Your task to perform on an android device: check android version Image 0: 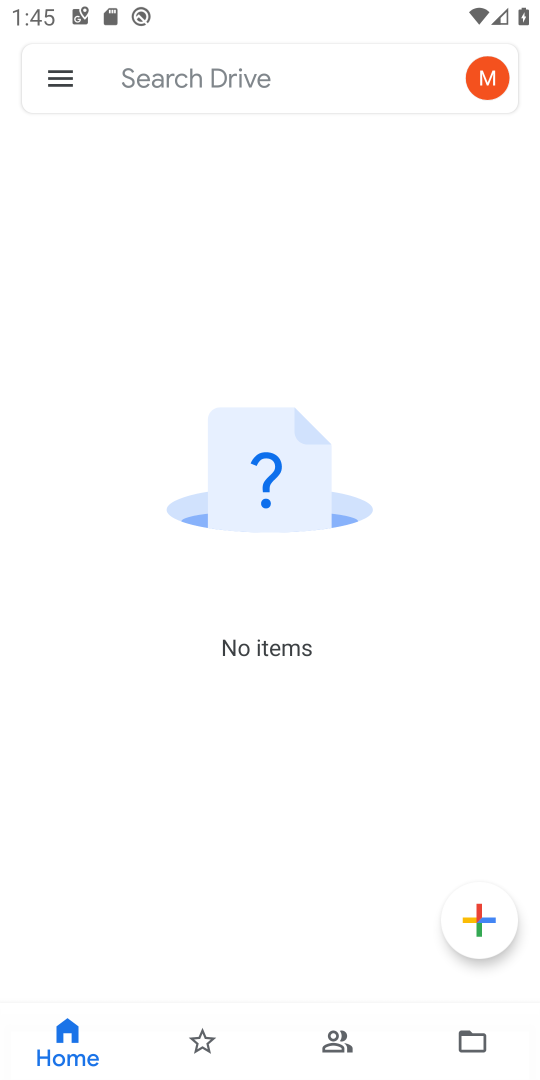
Step 0: press back button
Your task to perform on an android device: check android version Image 1: 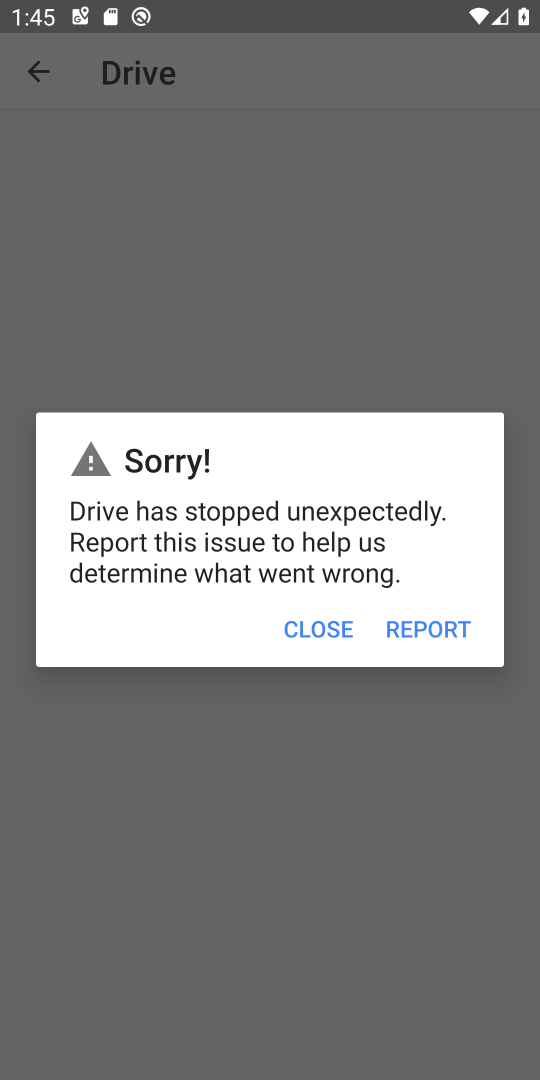
Step 1: press home button
Your task to perform on an android device: check android version Image 2: 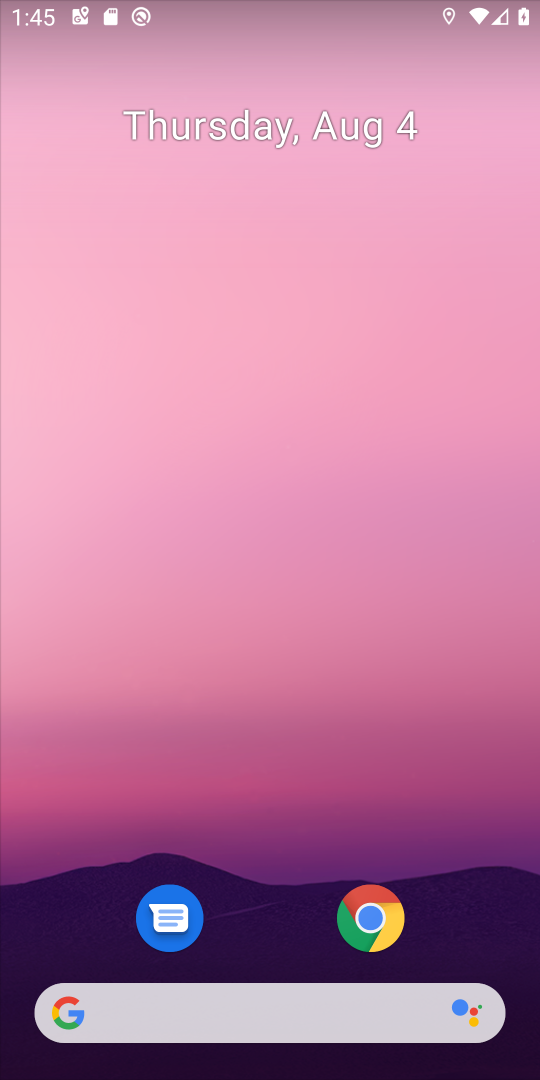
Step 2: drag from (215, 569) to (215, 345)
Your task to perform on an android device: check android version Image 3: 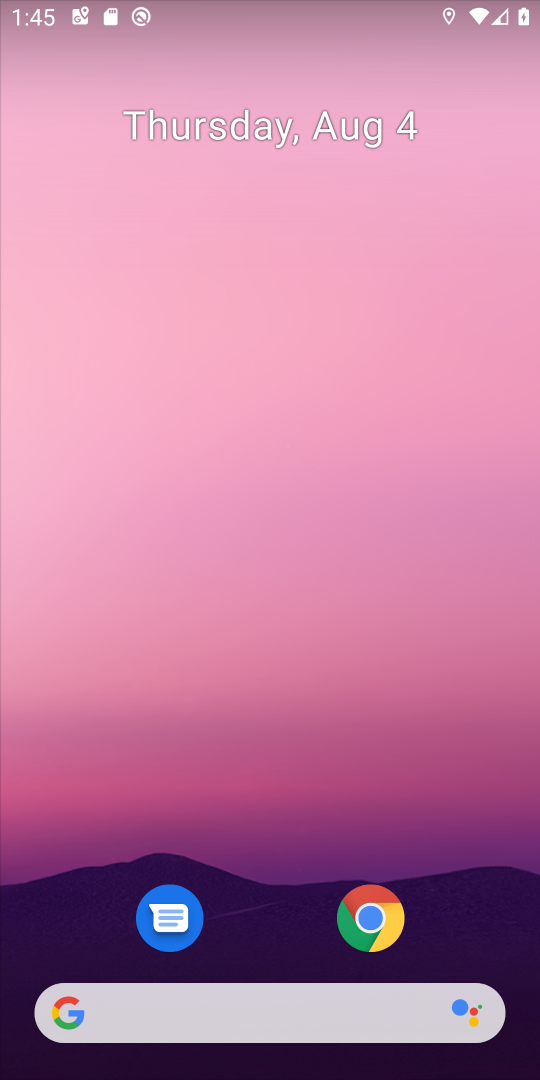
Step 3: drag from (296, 794) to (263, 177)
Your task to perform on an android device: check android version Image 4: 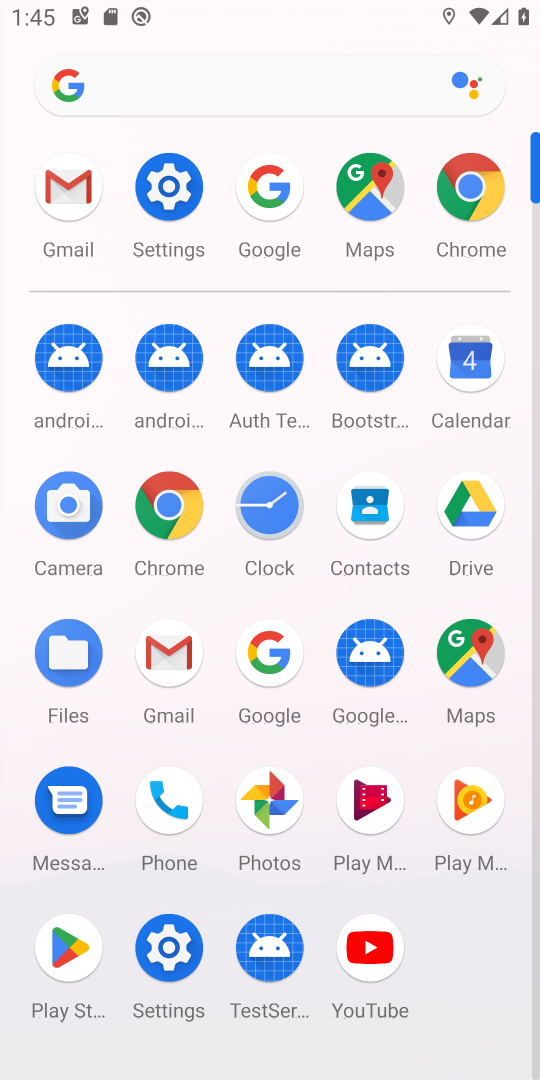
Step 4: click (199, 201)
Your task to perform on an android device: check android version Image 5: 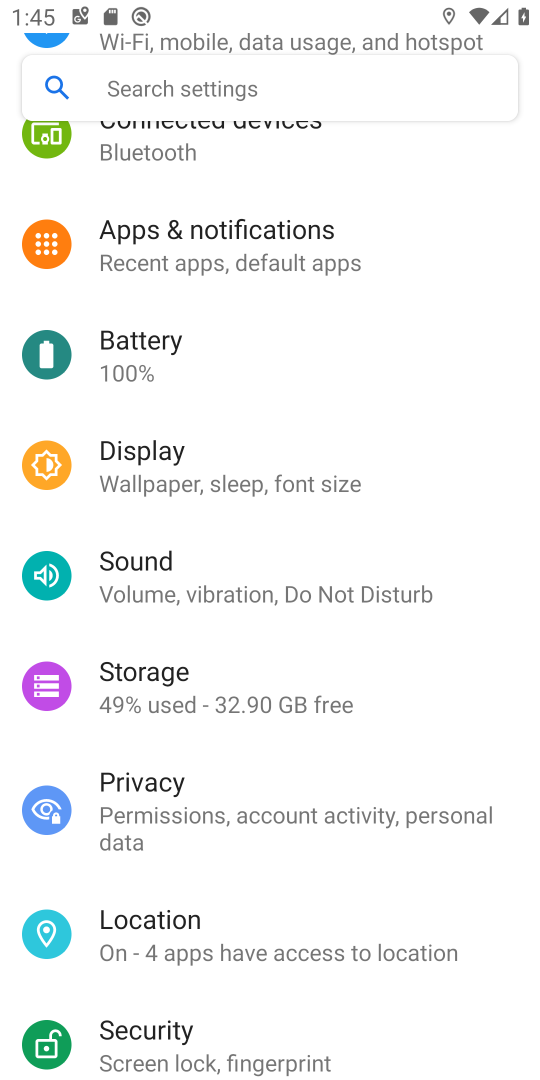
Step 5: drag from (258, 874) to (267, 265)
Your task to perform on an android device: check android version Image 6: 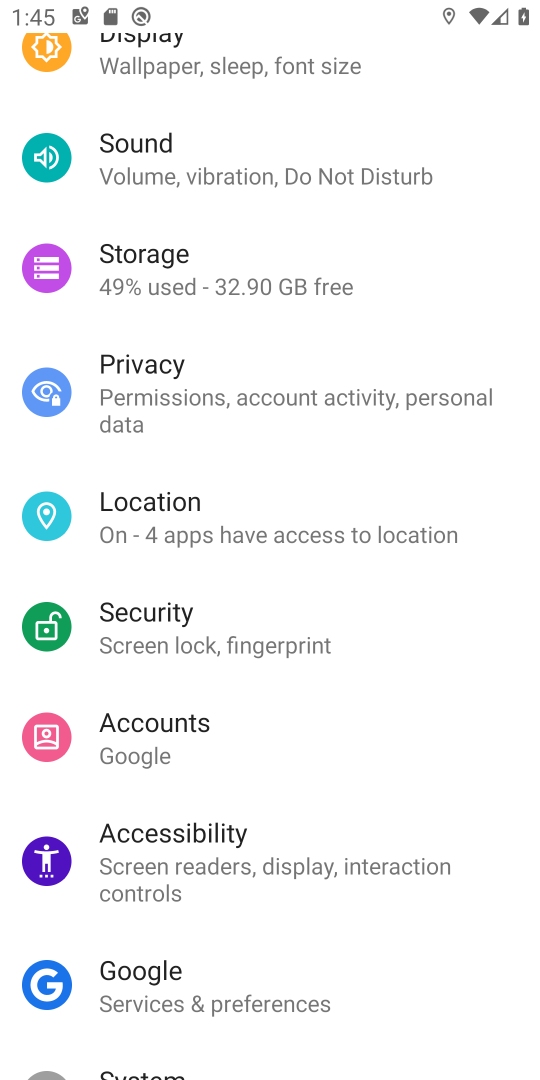
Step 6: drag from (219, 1008) to (219, 520)
Your task to perform on an android device: check android version Image 7: 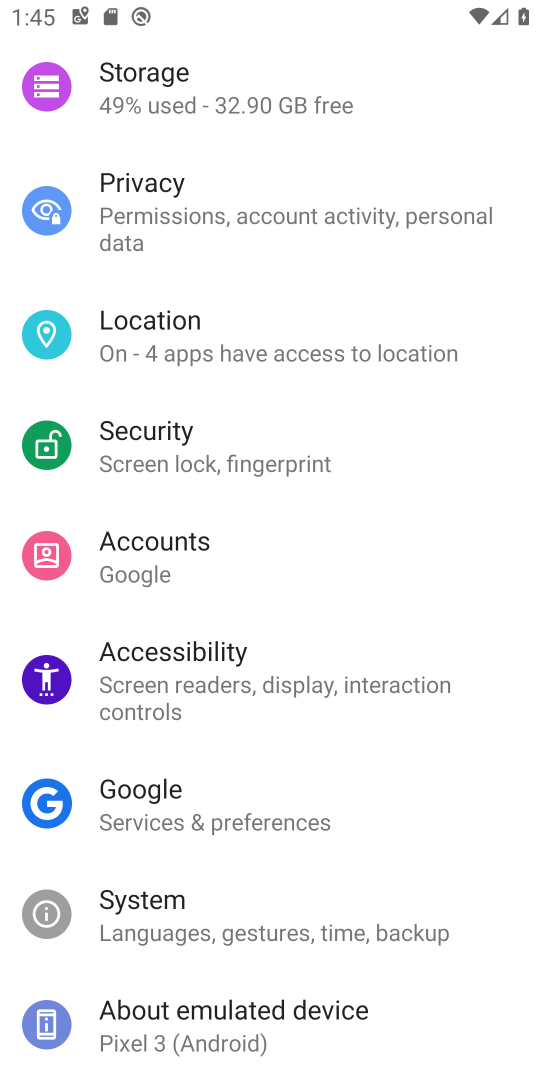
Step 7: click (196, 993)
Your task to perform on an android device: check android version Image 8: 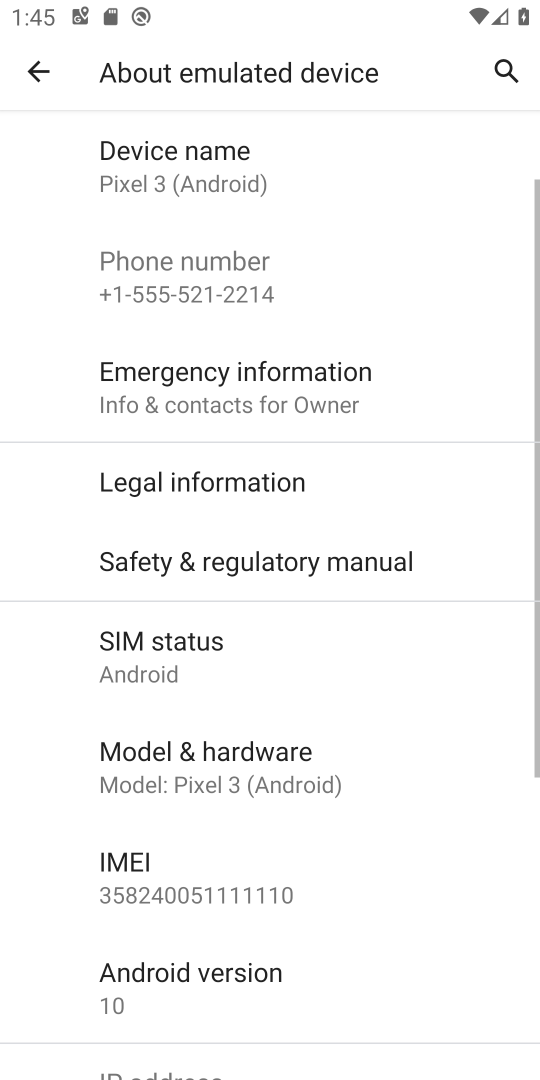
Step 8: click (287, 982)
Your task to perform on an android device: check android version Image 9: 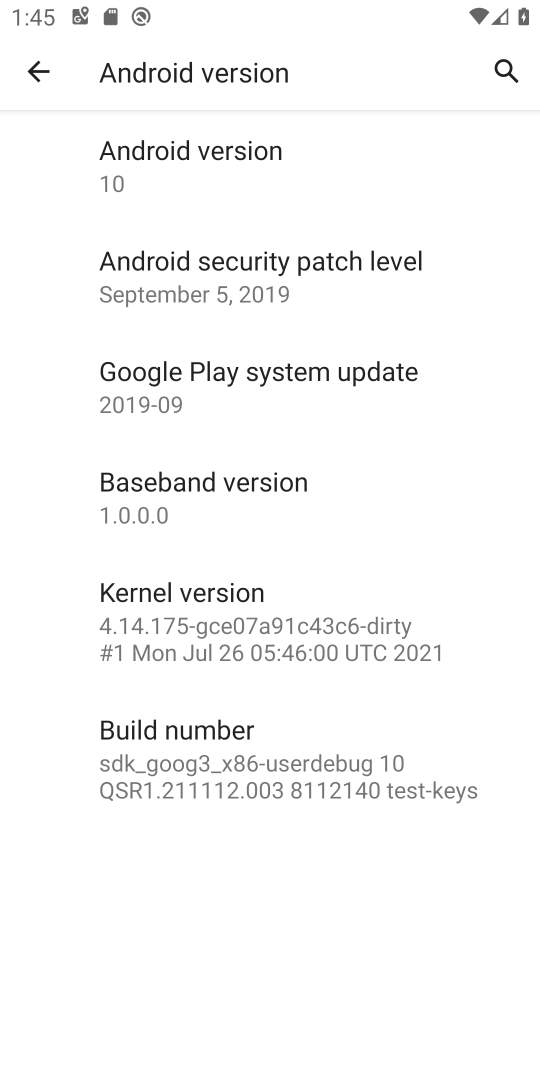
Step 9: click (217, 170)
Your task to perform on an android device: check android version Image 10: 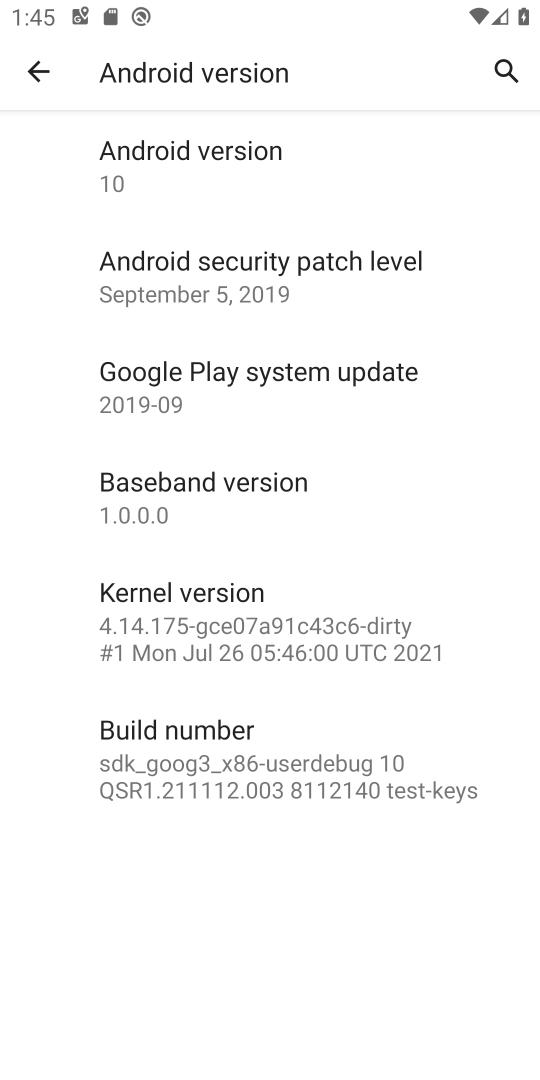
Step 10: task complete